Your task to perform on an android device: check android version Image 0: 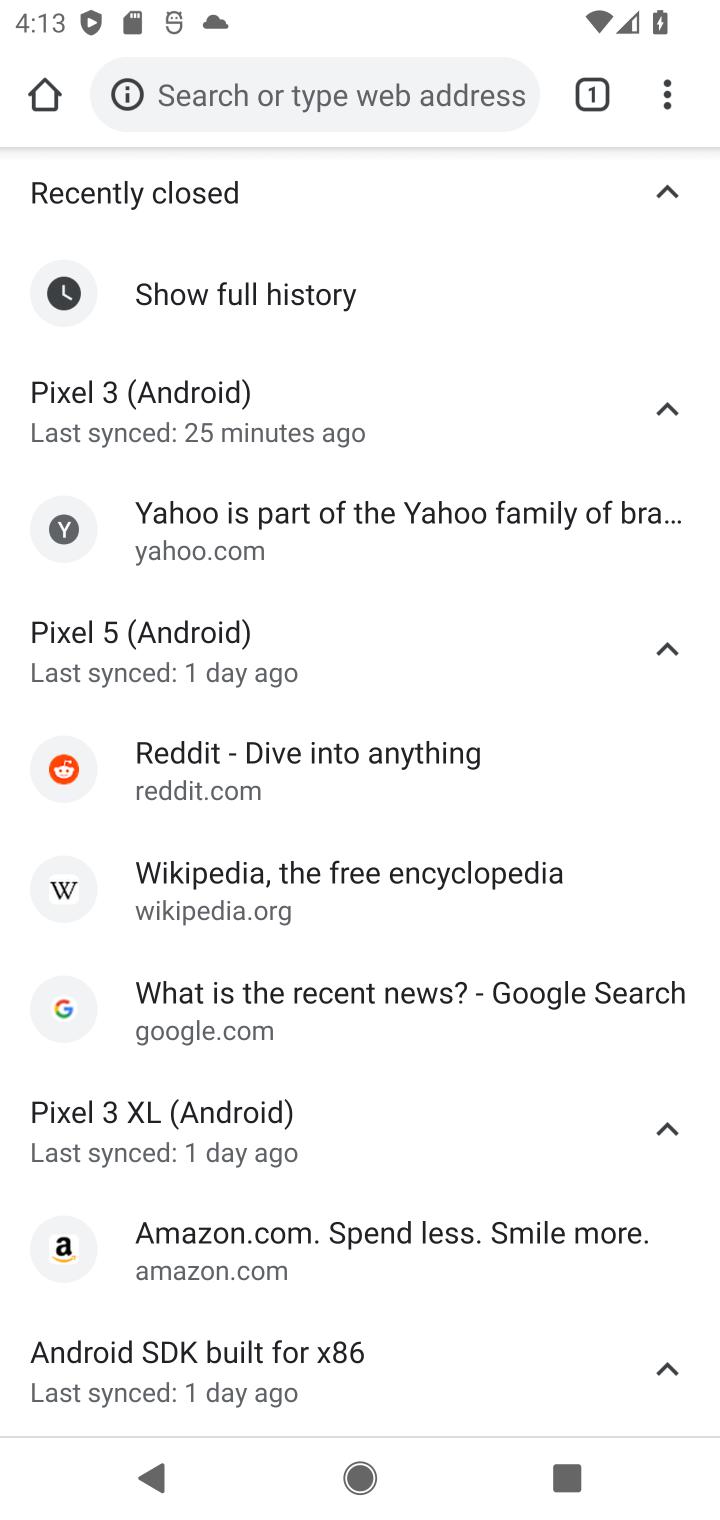
Step 0: press home button
Your task to perform on an android device: check android version Image 1: 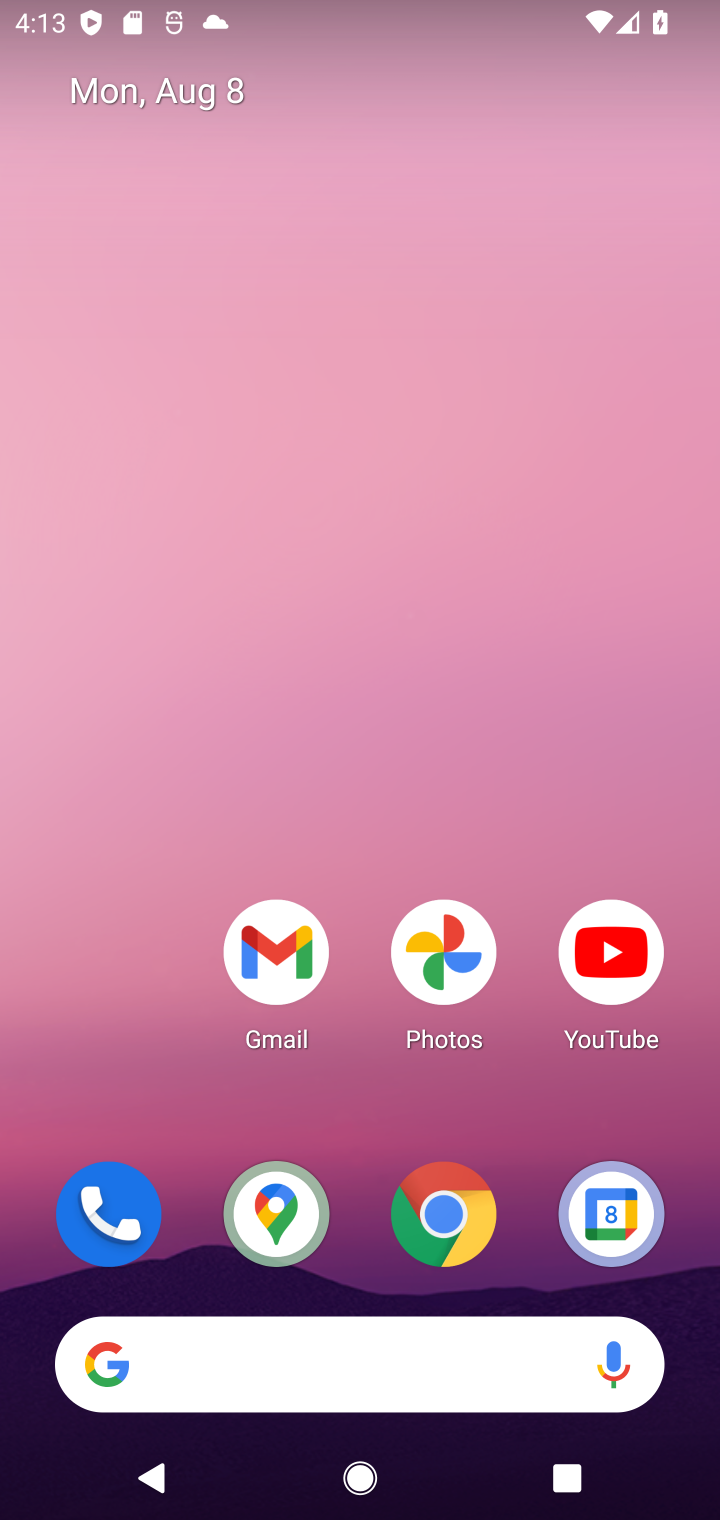
Step 1: drag from (324, 928) to (291, 138)
Your task to perform on an android device: check android version Image 2: 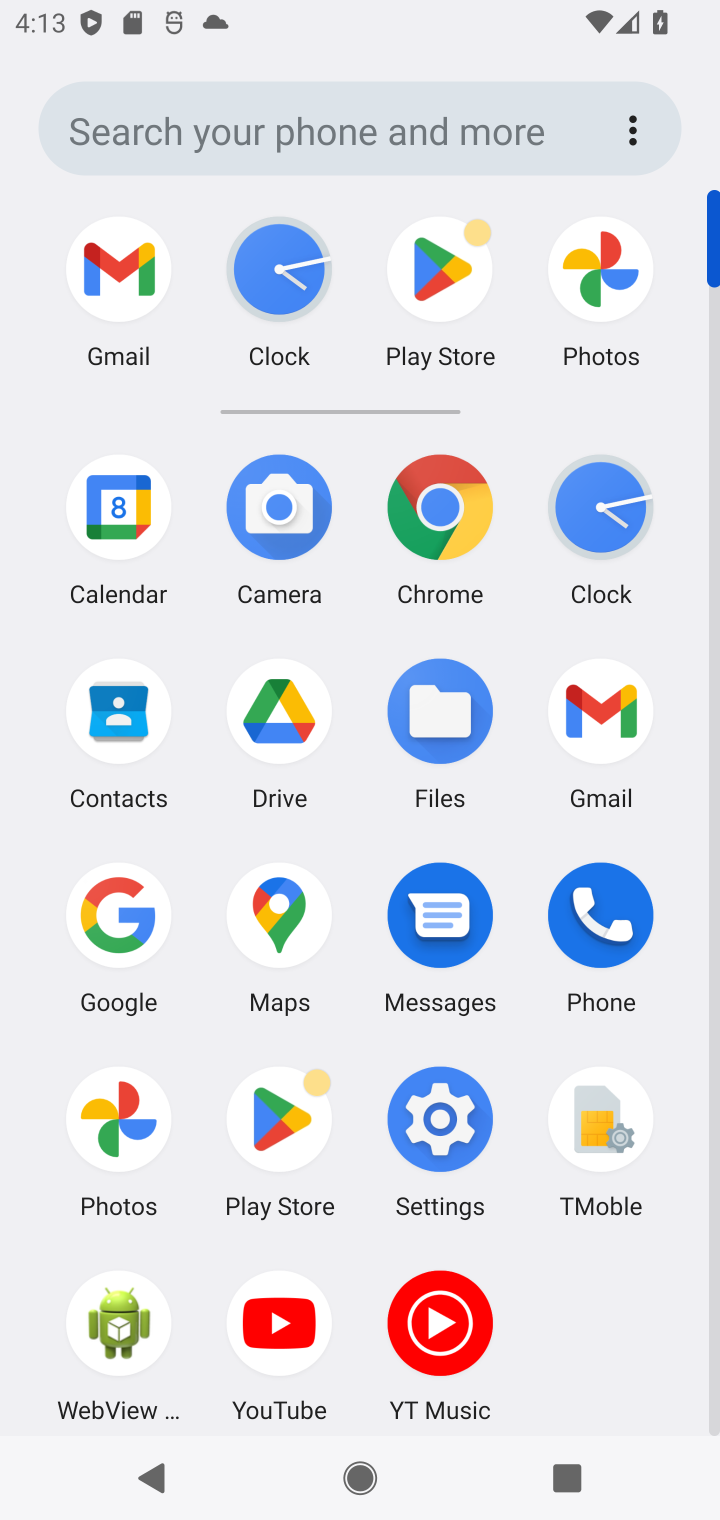
Step 2: click (436, 1105)
Your task to perform on an android device: check android version Image 3: 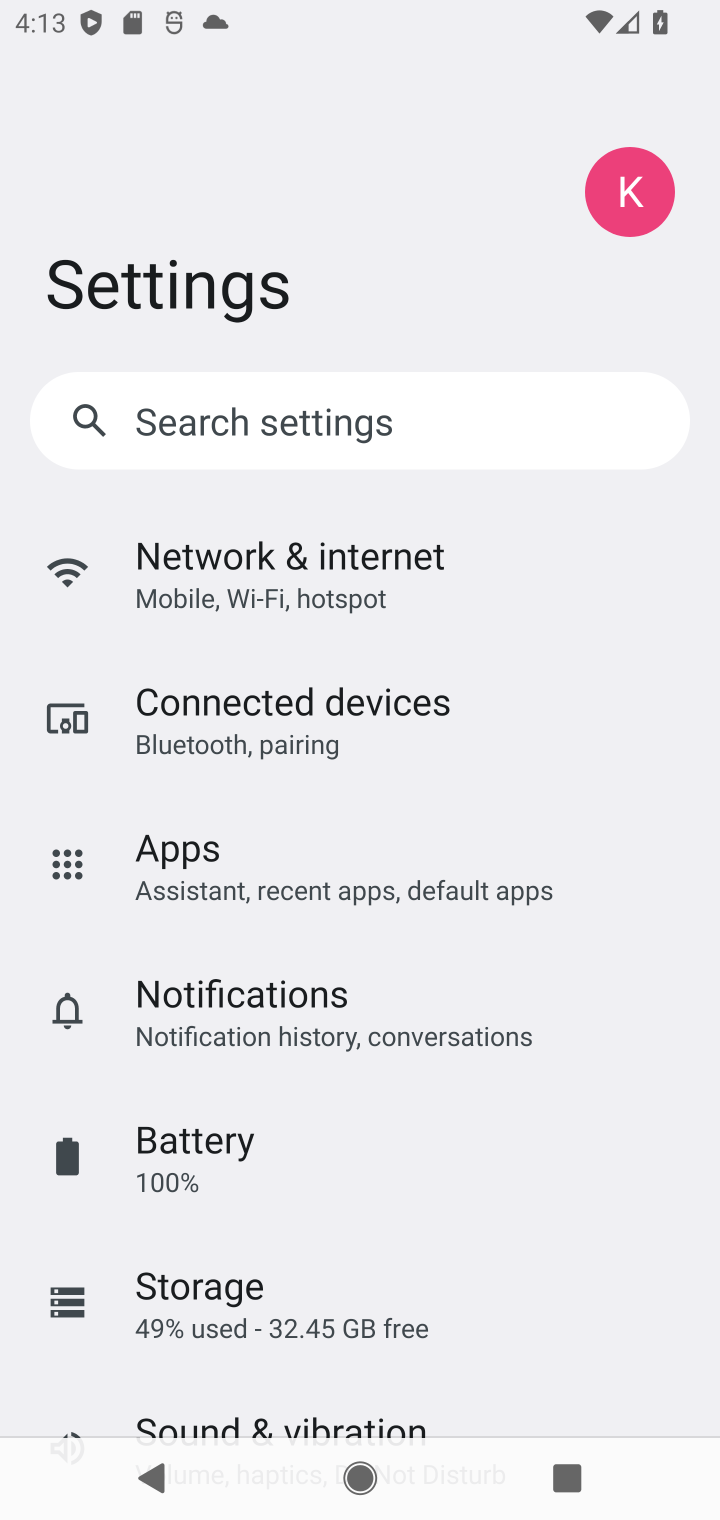
Step 3: drag from (291, 1358) to (279, 510)
Your task to perform on an android device: check android version Image 4: 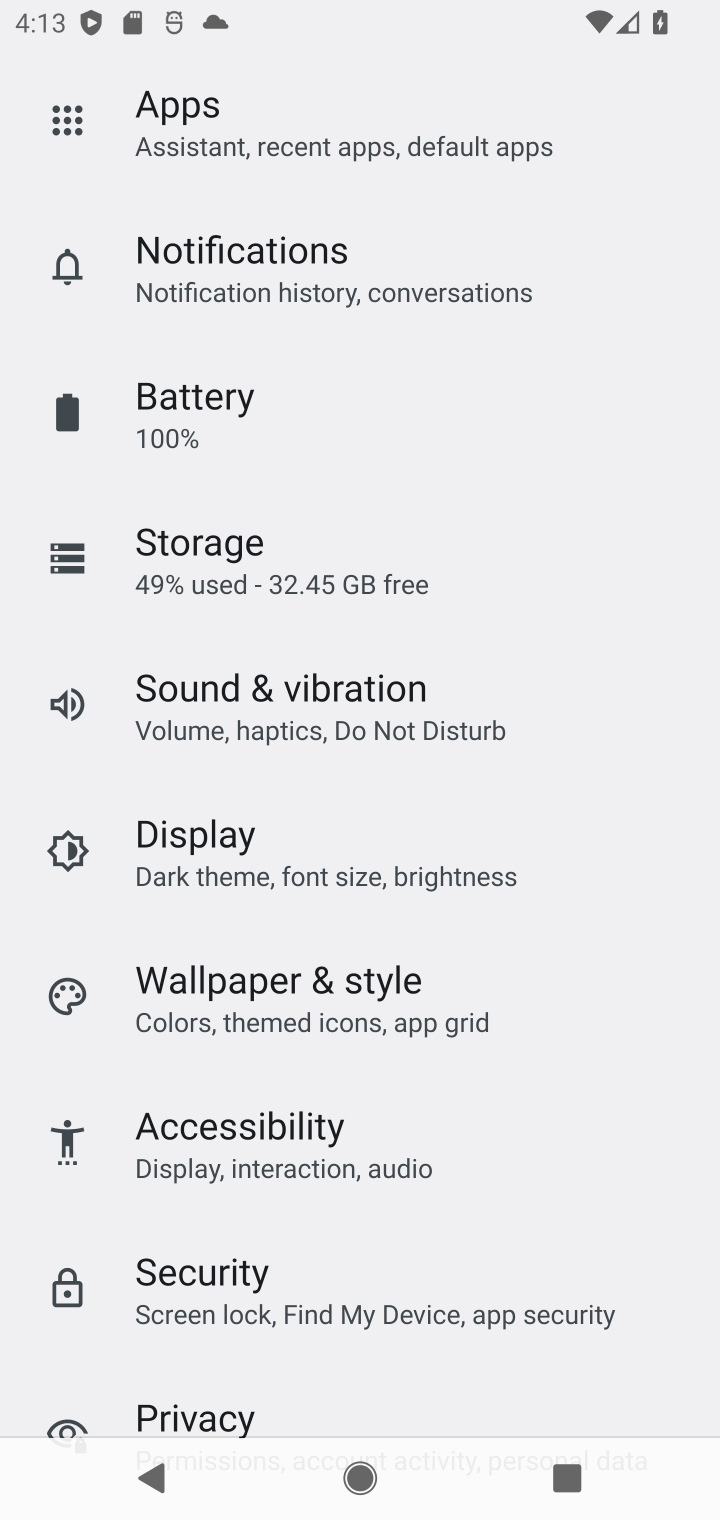
Step 4: drag from (278, 1371) to (316, 673)
Your task to perform on an android device: check android version Image 5: 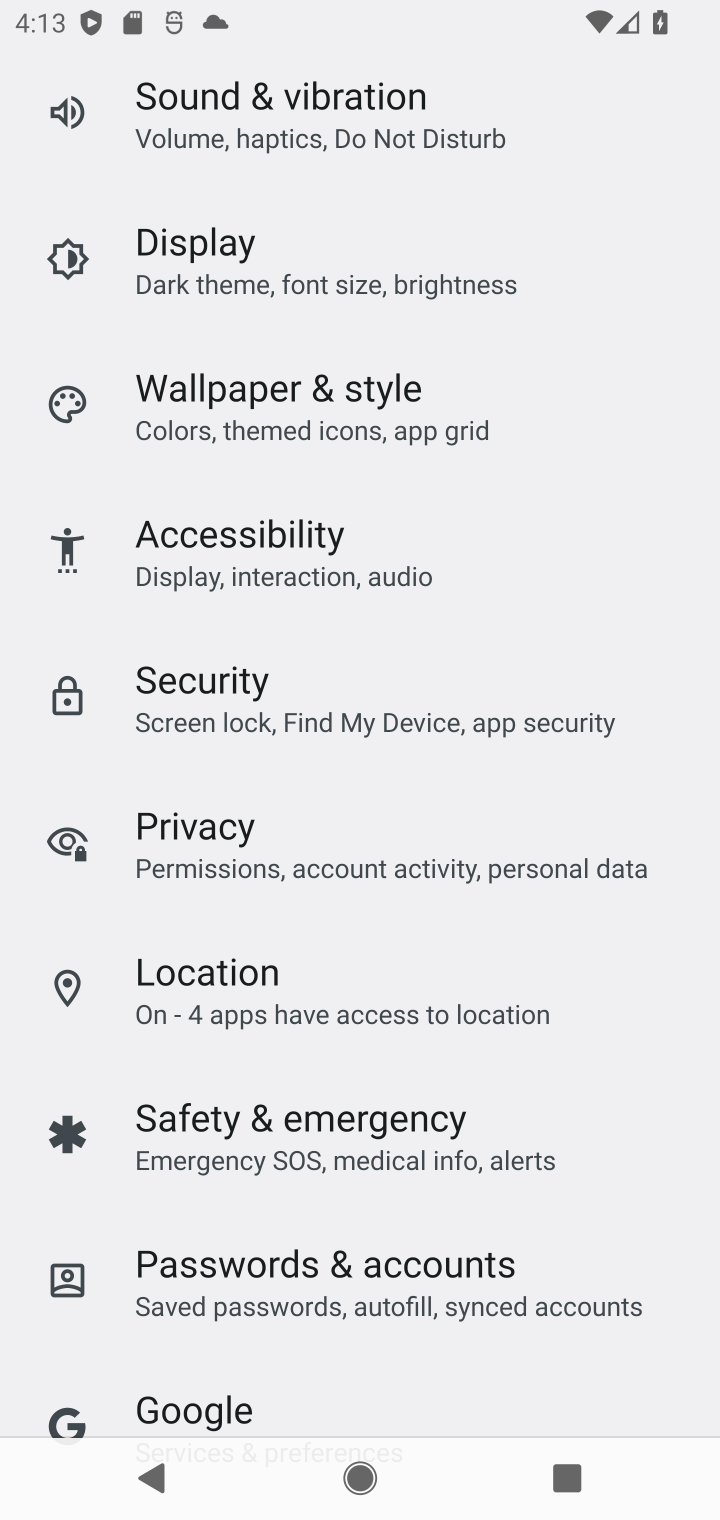
Step 5: drag from (340, 1344) to (314, 480)
Your task to perform on an android device: check android version Image 6: 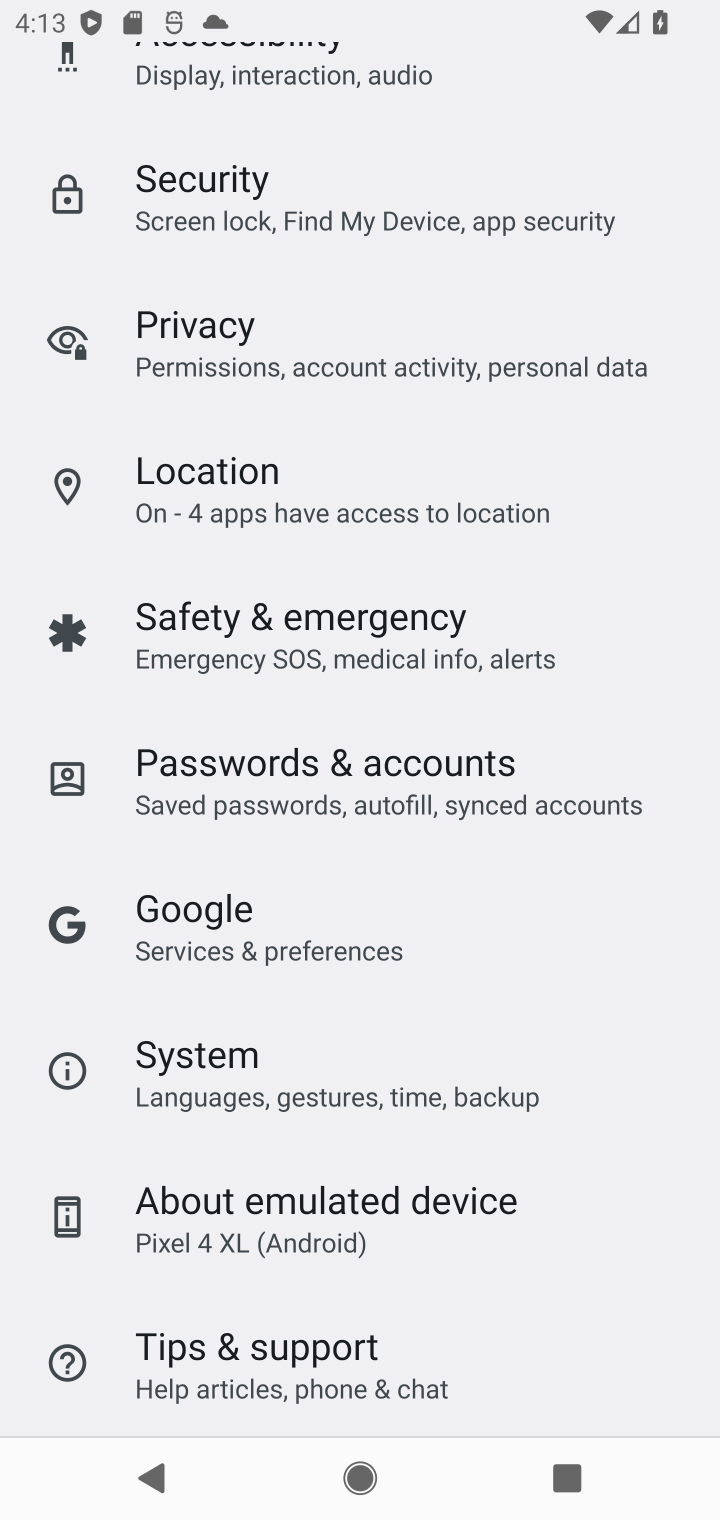
Step 6: drag from (354, 1325) to (354, 681)
Your task to perform on an android device: check android version Image 7: 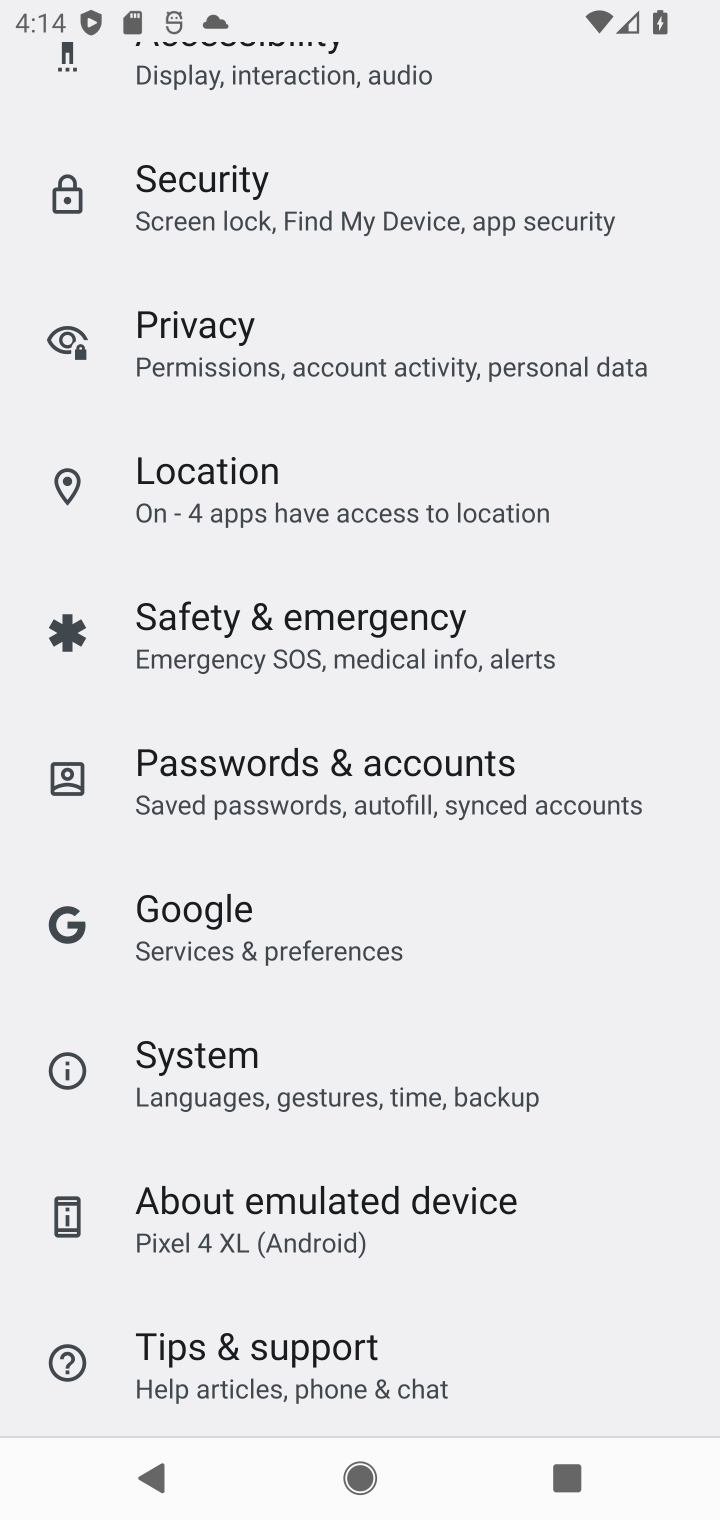
Step 7: drag from (276, 1354) to (287, 498)
Your task to perform on an android device: check android version Image 8: 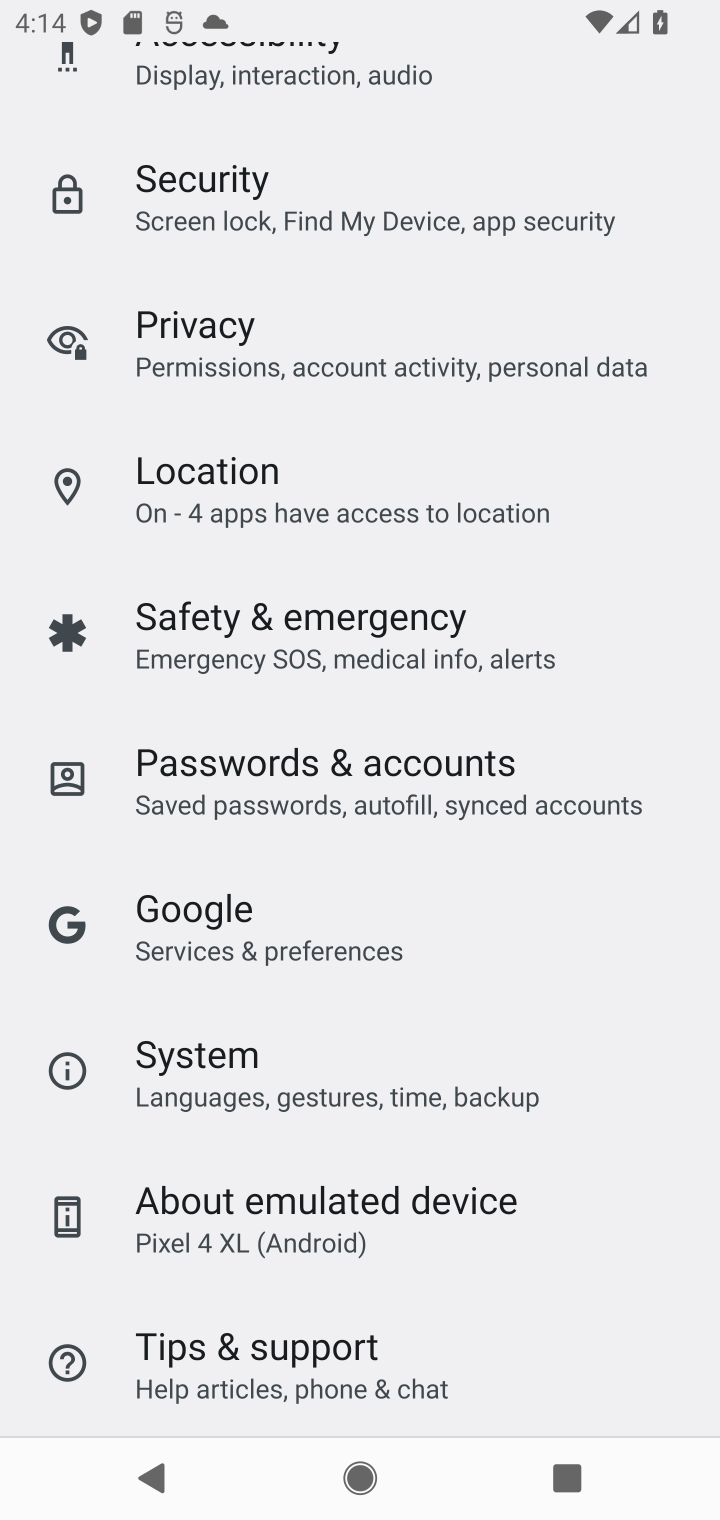
Step 8: click (248, 1226)
Your task to perform on an android device: check android version Image 9: 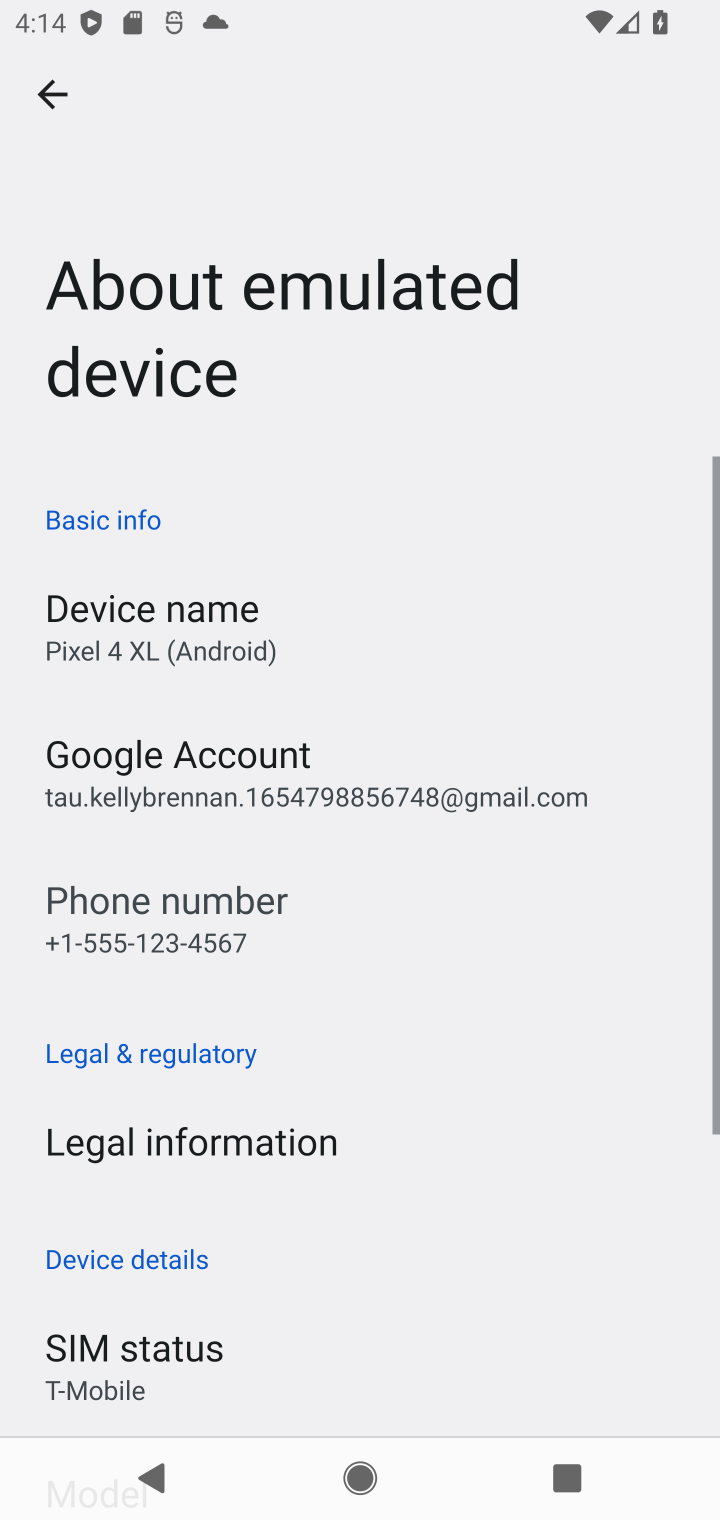
Step 9: drag from (189, 1330) to (208, 581)
Your task to perform on an android device: check android version Image 10: 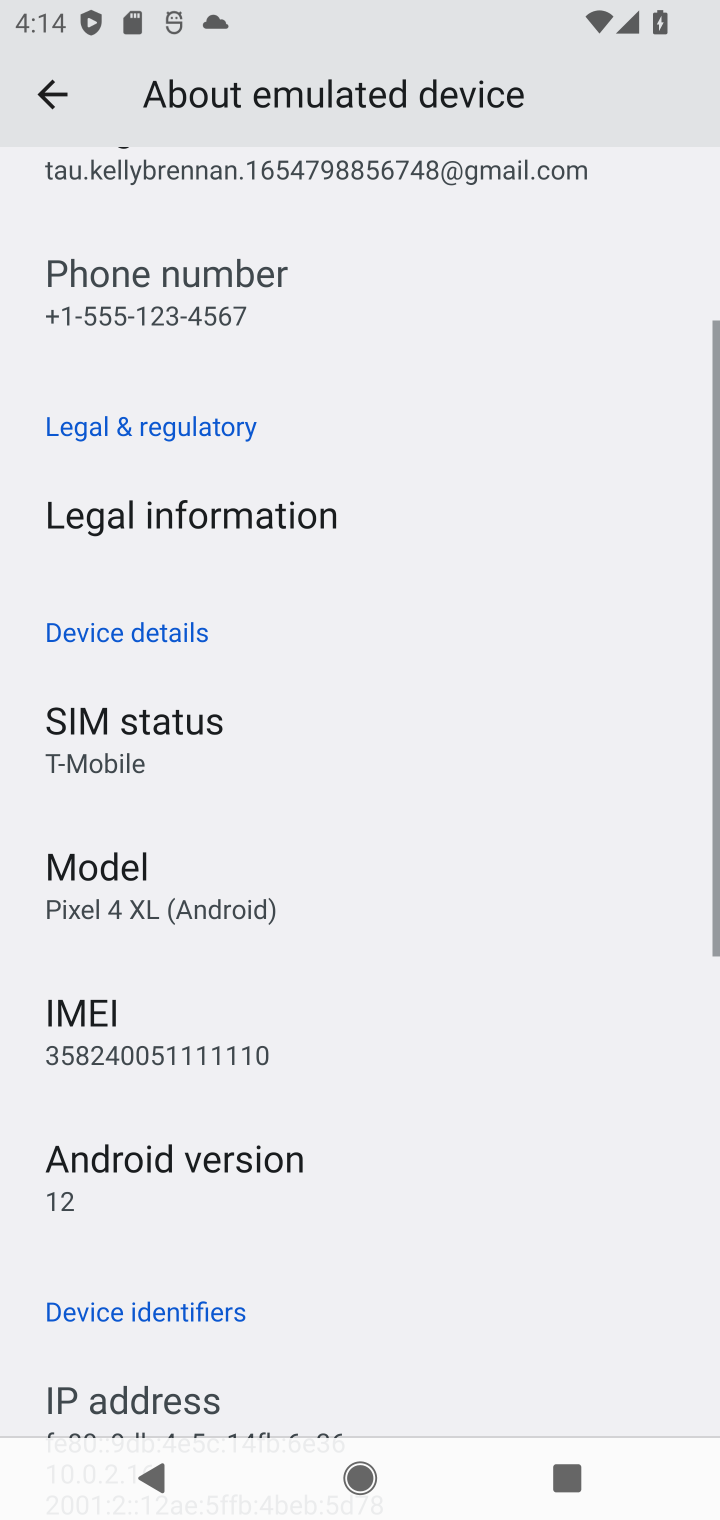
Step 10: click (227, 1168)
Your task to perform on an android device: check android version Image 11: 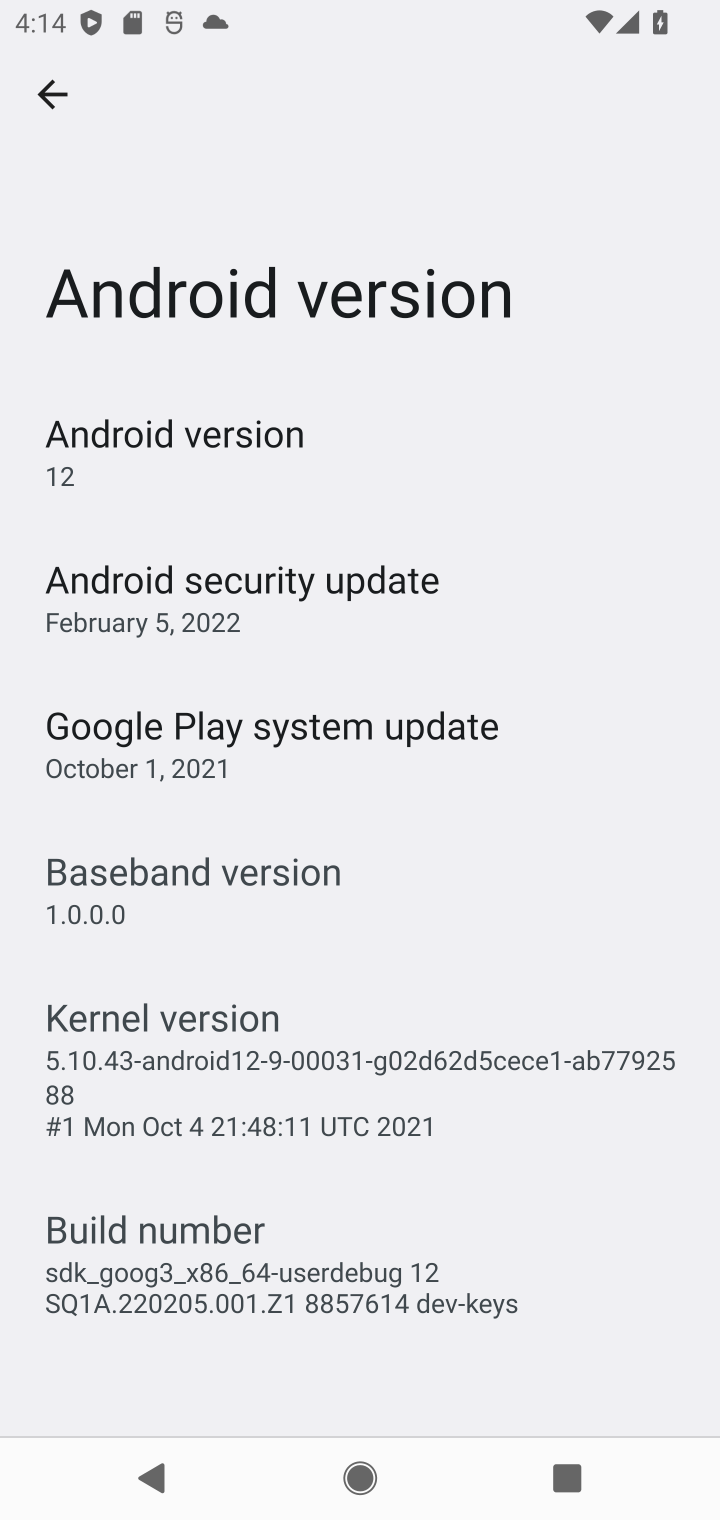
Step 11: task complete